Your task to perform on an android device: open wifi settings Image 0: 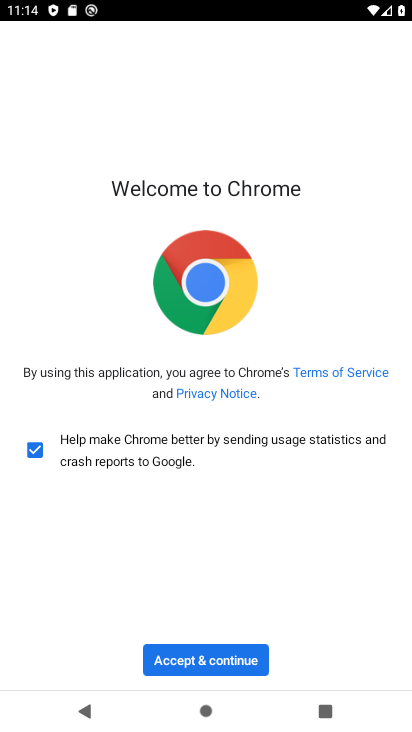
Step 0: press home button
Your task to perform on an android device: open wifi settings Image 1: 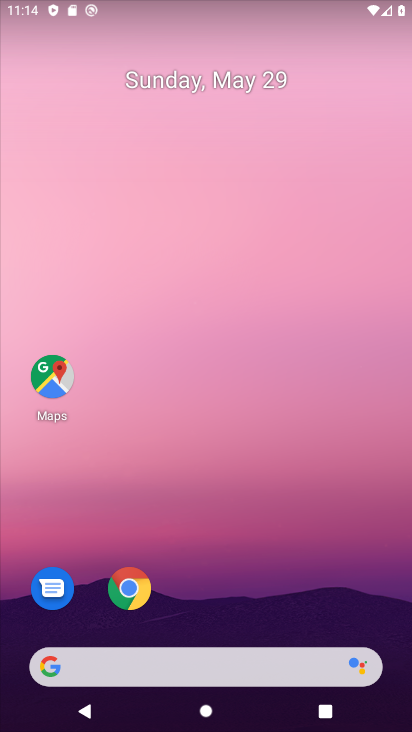
Step 1: drag from (343, 606) to (290, 74)
Your task to perform on an android device: open wifi settings Image 2: 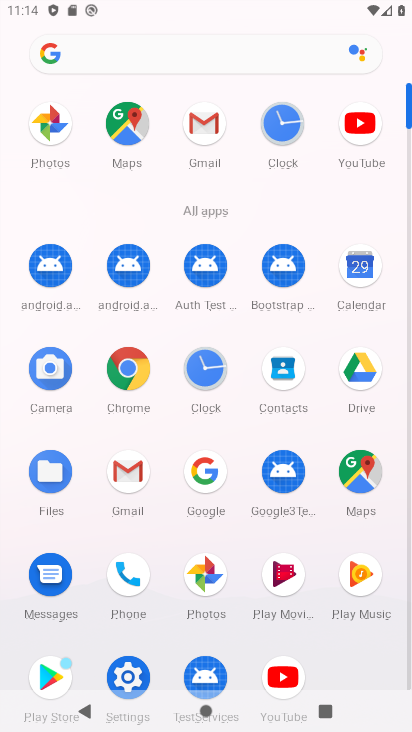
Step 2: click (117, 677)
Your task to perform on an android device: open wifi settings Image 3: 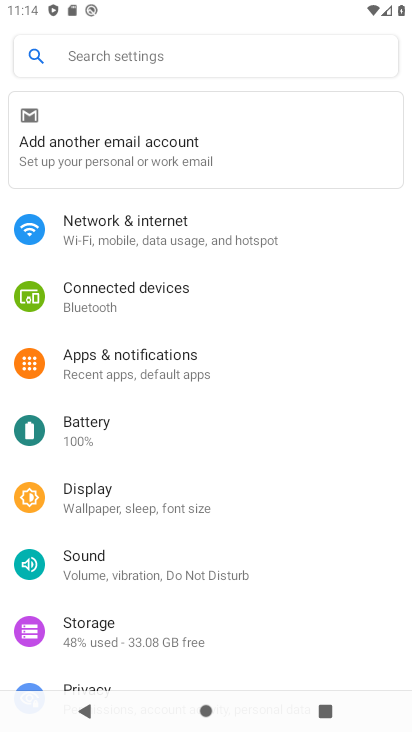
Step 3: click (120, 228)
Your task to perform on an android device: open wifi settings Image 4: 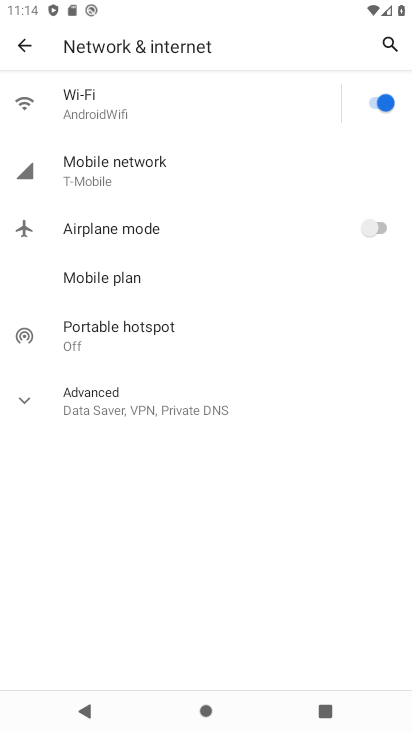
Step 4: click (88, 94)
Your task to perform on an android device: open wifi settings Image 5: 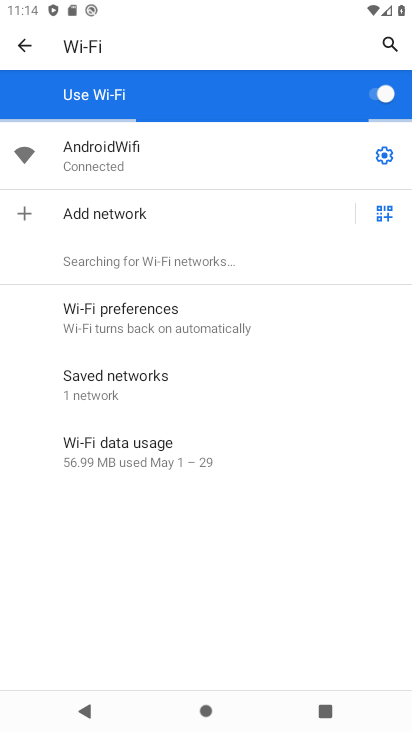
Step 5: task complete